Your task to perform on an android device: turn on showing notifications on the lock screen Image 0: 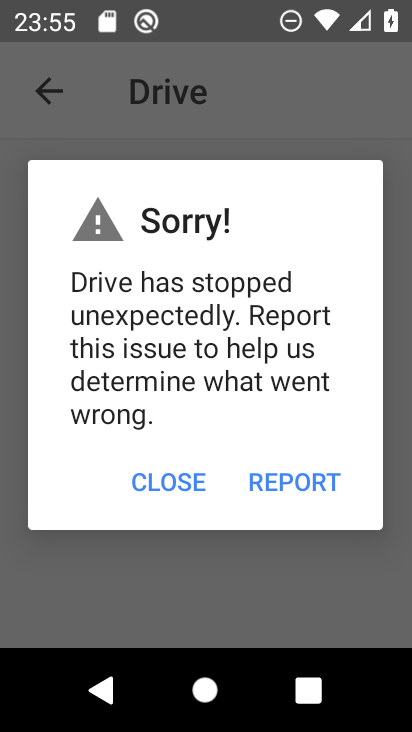
Step 0: press home button
Your task to perform on an android device: turn on showing notifications on the lock screen Image 1: 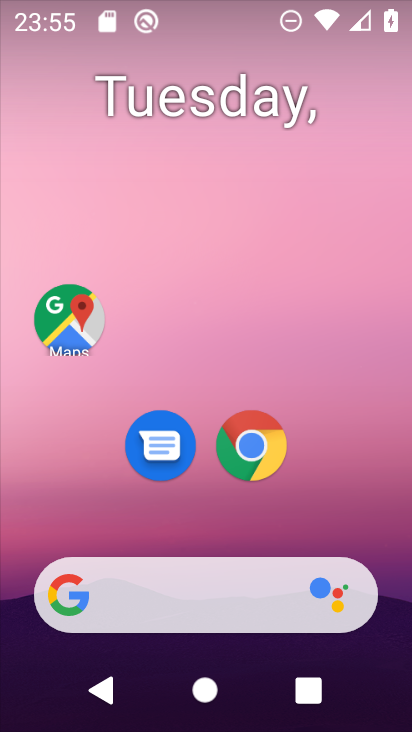
Step 1: drag from (267, 540) to (365, 88)
Your task to perform on an android device: turn on showing notifications on the lock screen Image 2: 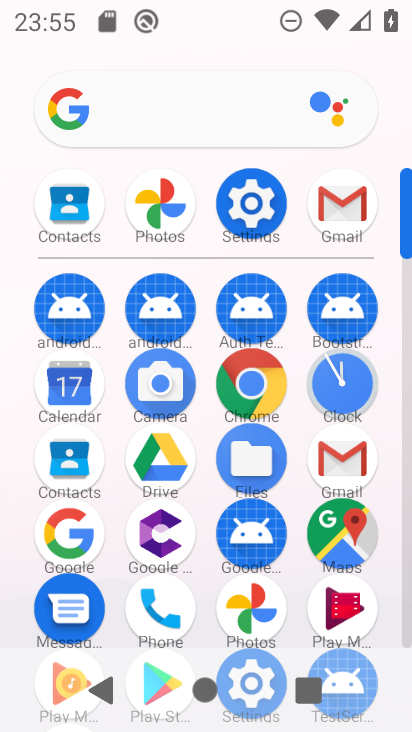
Step 2: click (258, 202)
Your task to perform on an android device: turn on showing notifications on the lock screen Image 3: 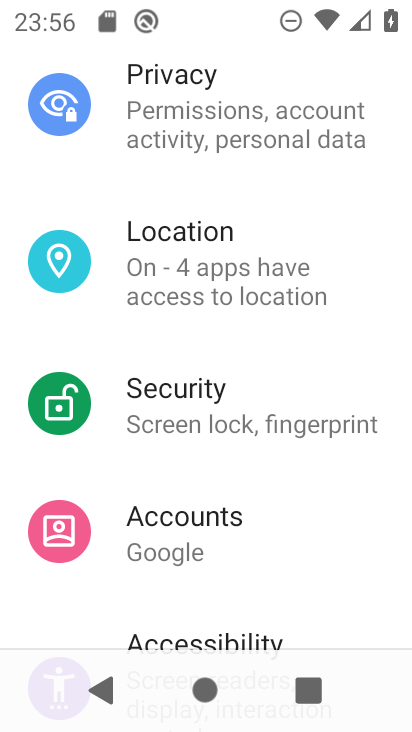
Step 3: drag from (211, 251) to (228, 423)
Your task to perform on an android device: turn on showing notifications on the lock screen Image 4: 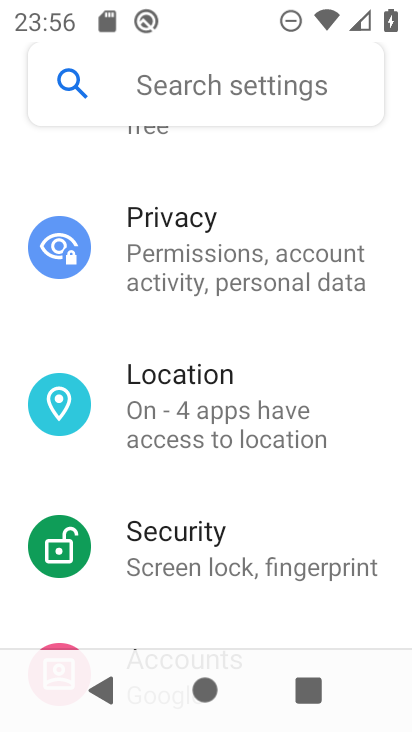
Step 4: drag from (239, 275) to (278, 451)
Your task to perform on an android device: turn on showing notifications on the lock screen Image 5: 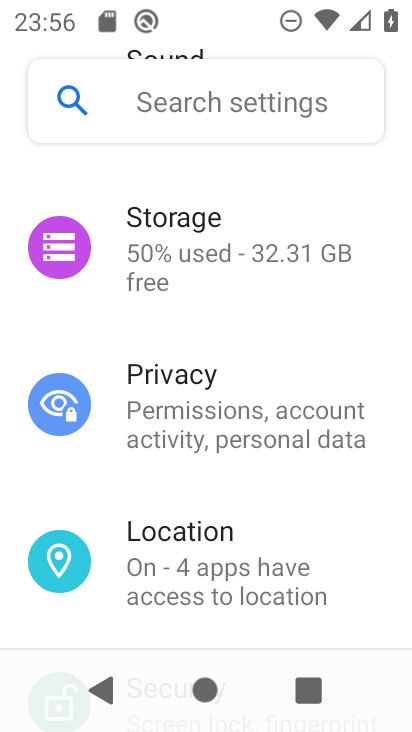
Step 5: drag from (263, 285) to (244, 434)
Your task to perform on an android device: turn on showing notifications on the lock screen Image 6: 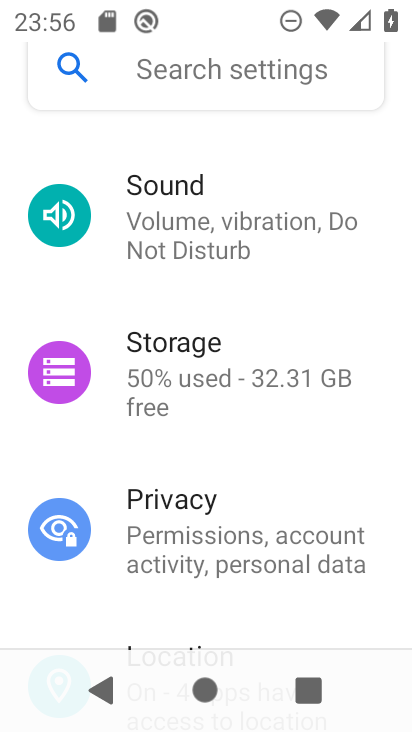
Step 6: drag from (239, 258) to (281, 393)
Your task to perform on an android device: turn on showing notifications on the lock screen Image 7: 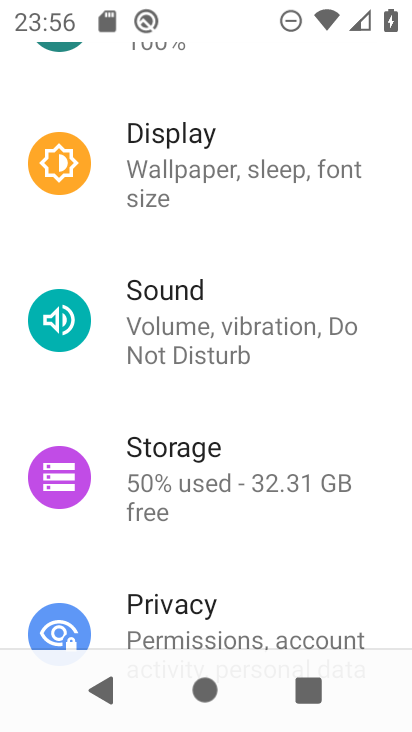
Step 7: drag from (286, 291) to (304, 455)
Your task to perform on an android device: turn on showing notifications on the lock screen Image 8: 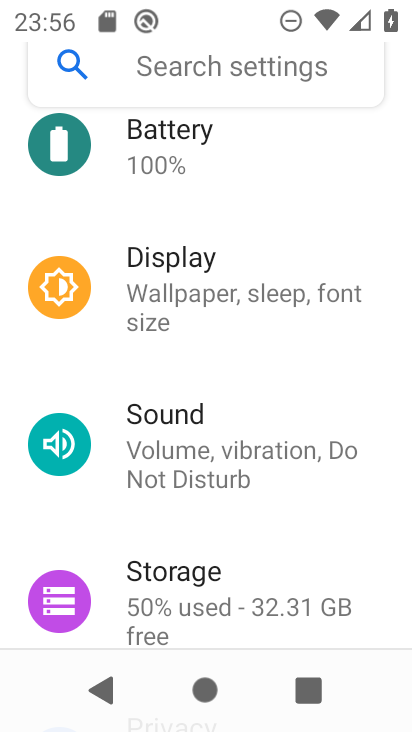
Step 8: drag from (343, 254) to (380, 410)
Your task to perform on an android device: turn on showing notifications on the lock screen Image 9: 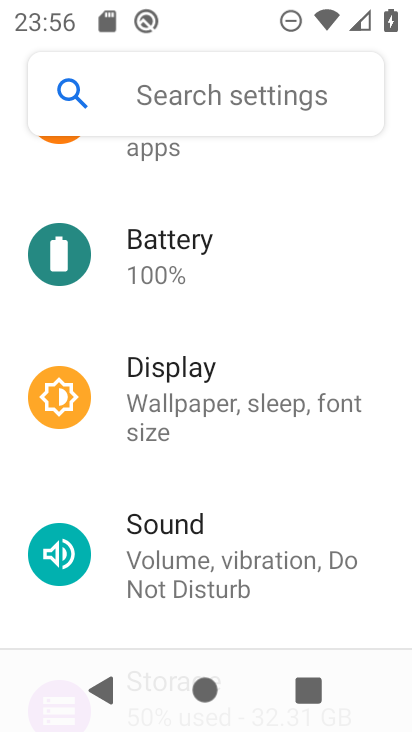
Step 9: drag from (352, 278) to (346, 470)
Your task to perform on an android device: turn on showing notifications on the lock screen Image 10: 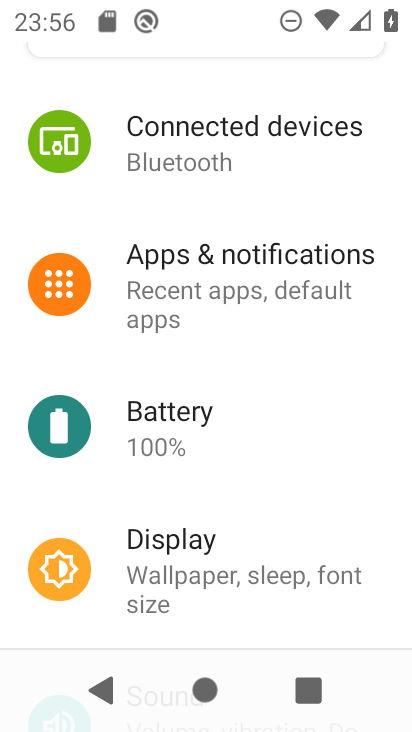
Step 10: click (232, 288)
Your task to perform on an android device: turn on showing notifications on the lock screen Image 11: 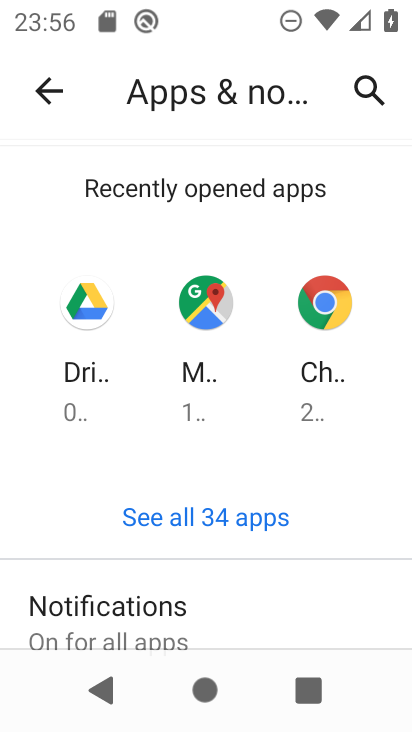
Step 11: click (181, 609)
Your task to perform on an android device: turn on showing notifications on the lock screen Image 12: 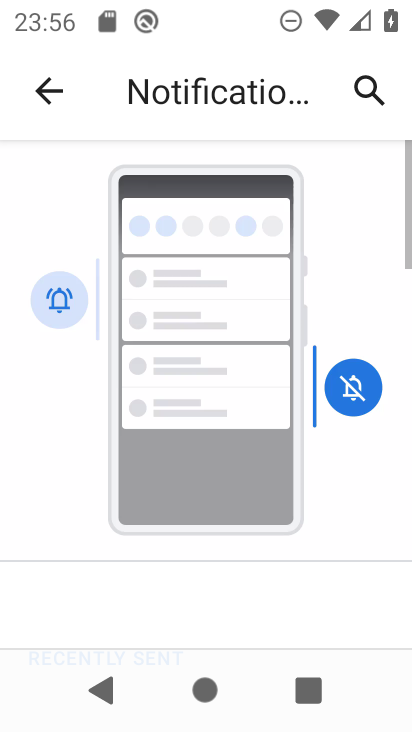
Step 12: drag from (125, 547) to (220, 257)
Your task to perform on an android device: turn on showing notifications on the lock screen Image 13: 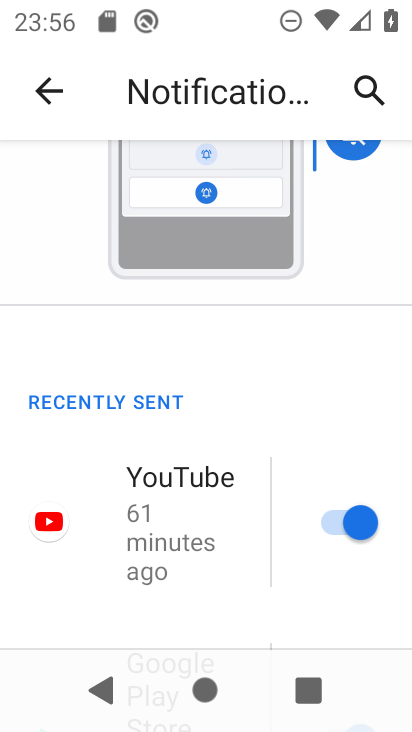
Step 13: drag from (188, 566) to (235, 222)
Your task to perform on an android device: turn on showing notifications on the lock screen Image 14: 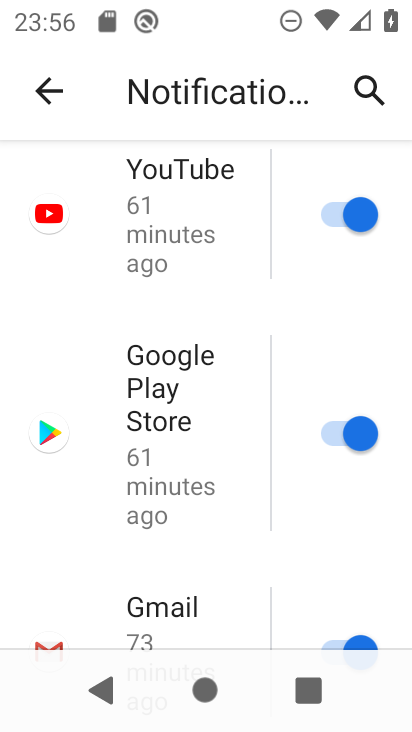
Step 14: drag from (221, 508) to (208, 167)
Your task to perform on an android device: turn on showing notifications on the lock screen Image 15: 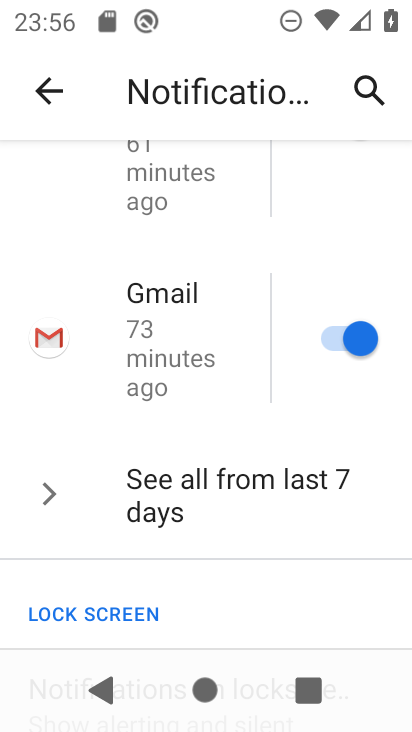
Step 15: drag from (195, 502) to (187, 262)
Your task to perform on an android device: turn on showing notifications on the lock screen Image 16: 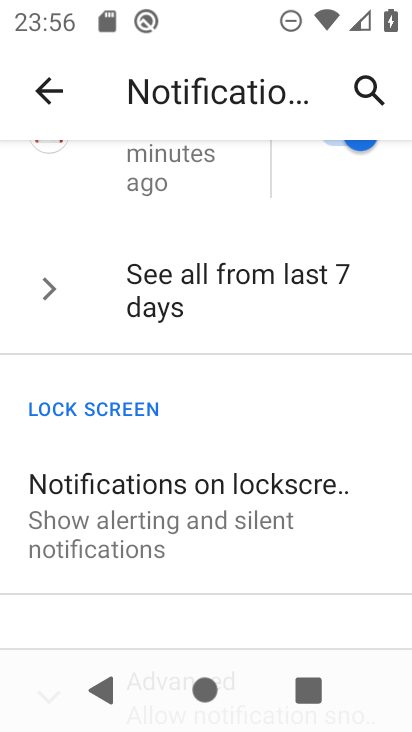
Step 16: click (202, 513)
Your task to perform on an android device: turn on showing notifications on the lock screen Image 17: 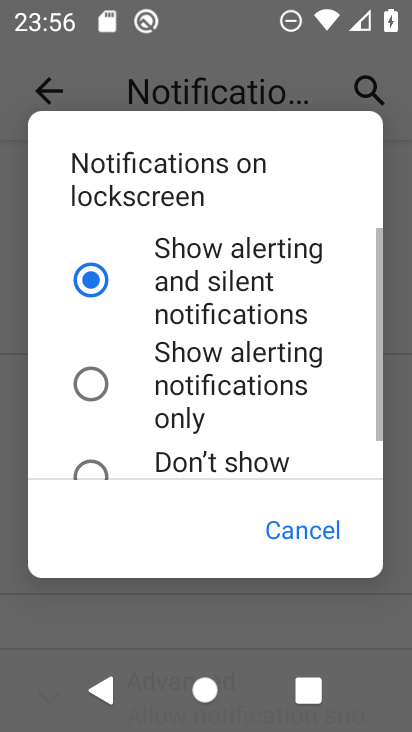
Step 17: click (256, 247)
Your task to perform on an android device: turn on showing notifications on the lock screen Image 18: 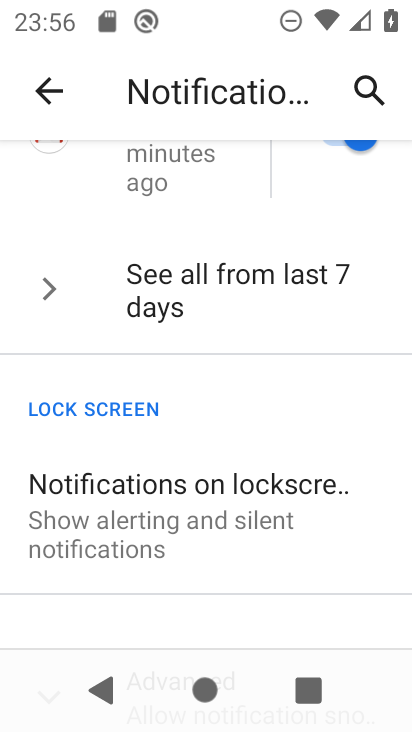
Step 18: task complete